Your task to perform on an android device: turn off translation in the chrome app Image 0: 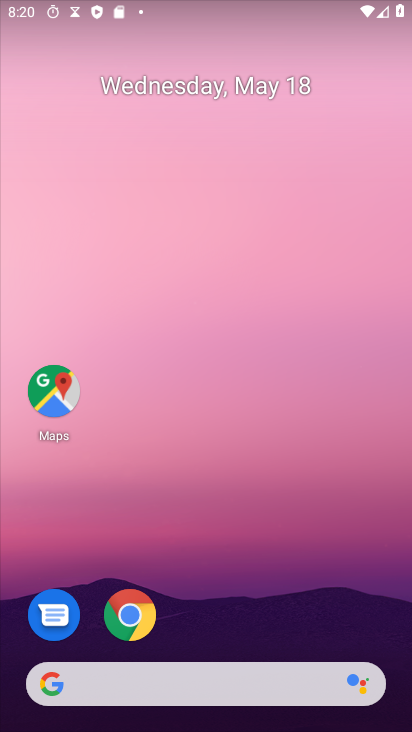
Step 0: click (410, 457)
Your task to perform on an android device: turn off translation in the chrome app Image 1: 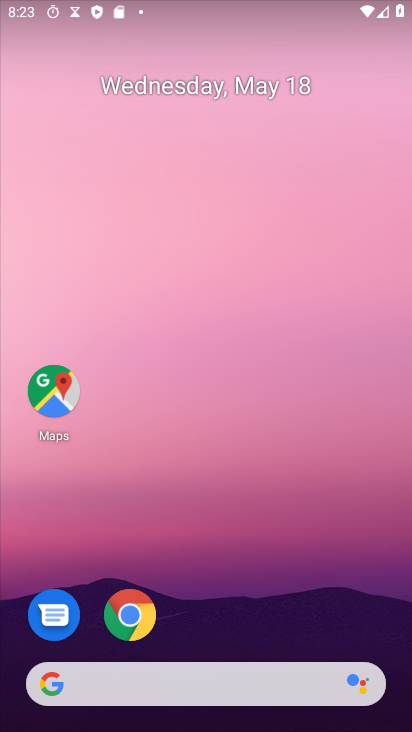
Step 1: click (157, 601)
Your task to perform on an android device: turn off translation in the chrome app Image 2: 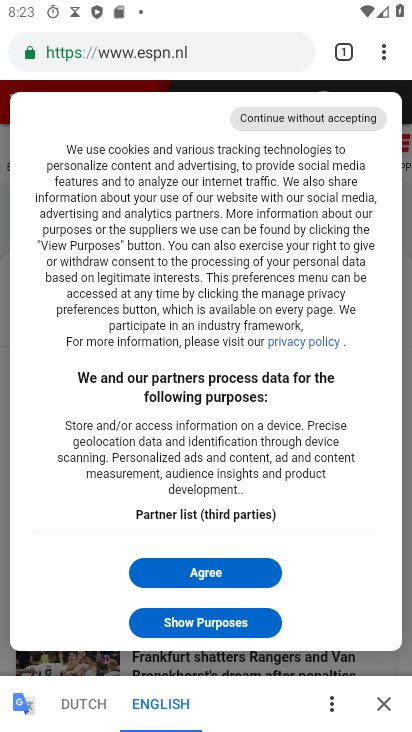
Step 2: click (389, 52)
Your task to perform on an android device: turn off translation in the chrome app Image 3: 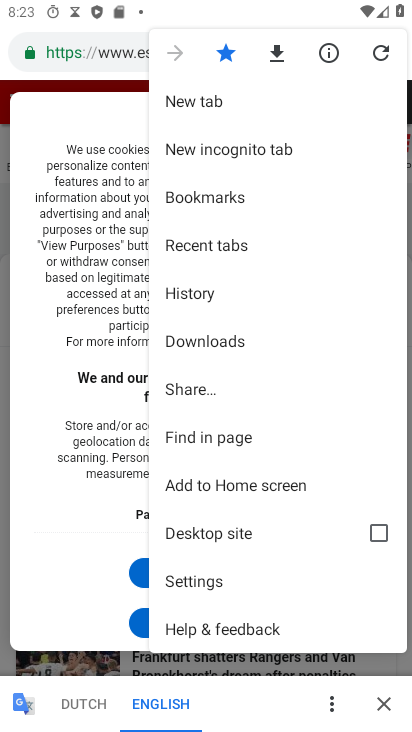
Step 3: click (178, 585)
Your task to perform on an android device: turn off translation in the chrome app Image 4: 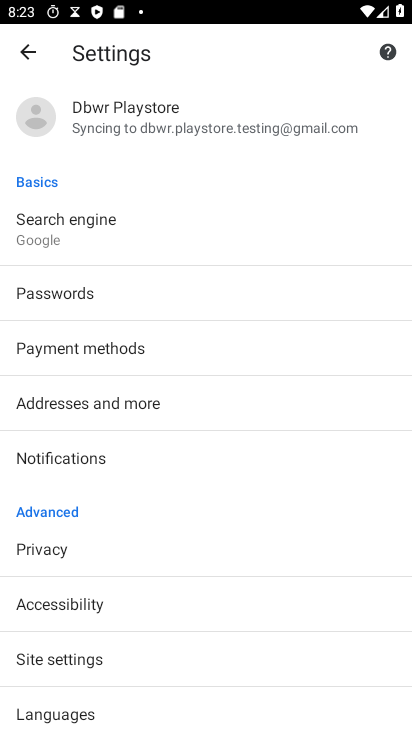
Step 4: click (105, 713)
Your task to perform on an android device: turn off translation in the chrome app Image 5: 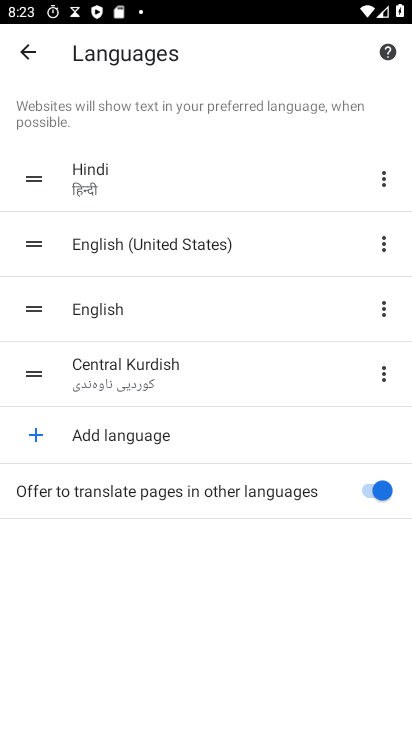
Step 5: click (372, 489)
Your task to perform on an android device: turn off translation in the chrome app Image 6: 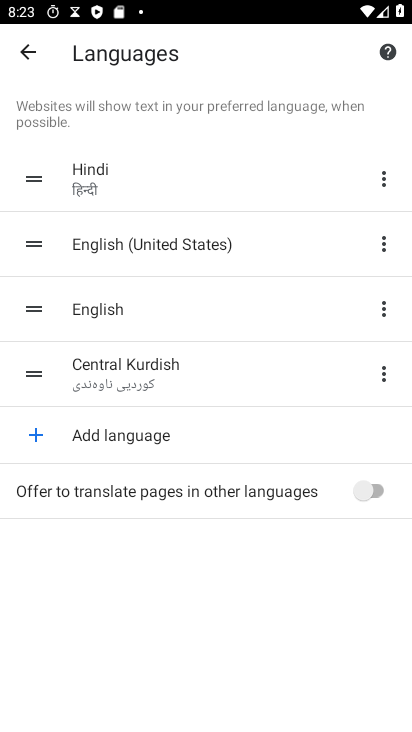
Step 6: task complete